Your task to perform on an android device: turn on wifi Image 0: 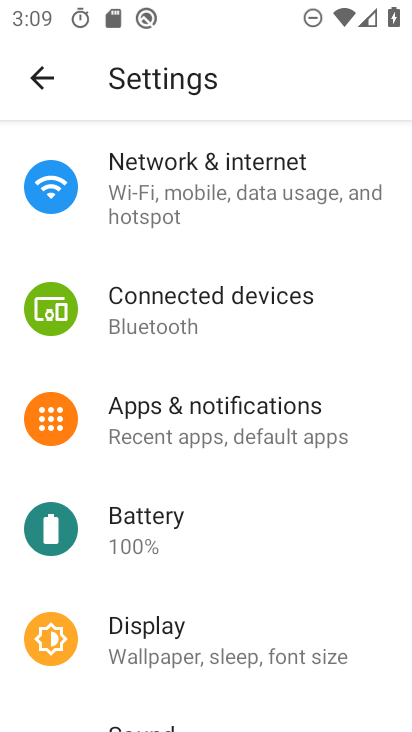
Step 0: press home button
Your task to perform on an android device: turn on wifi Image 1: 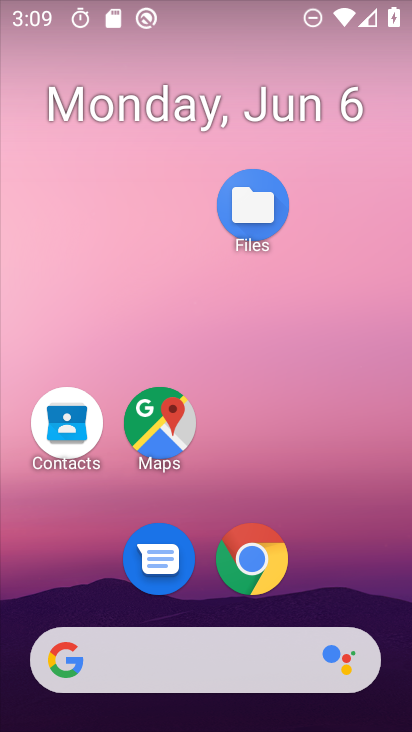
Step 1: drag from (228, 626) to (173, 131)
Your task to perform on an android device: turn on wifi Image 2: 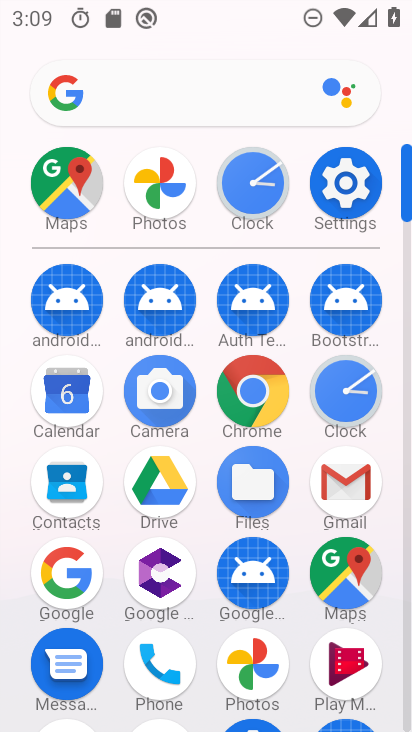
Step 2: click (335, 186)
Your task to perform on an android device: turn on wifi Image 3: 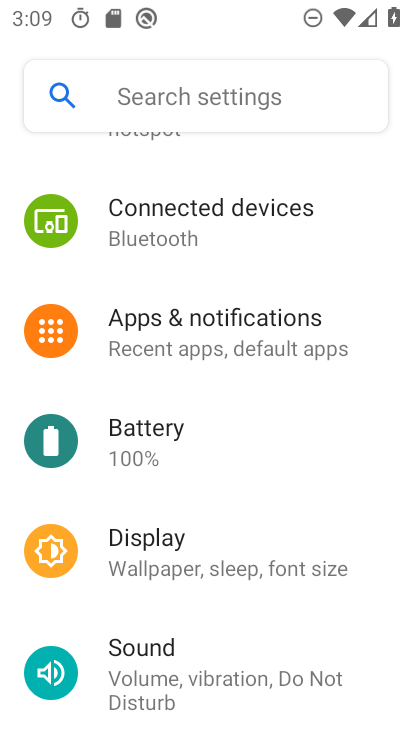
Step 3: drag from (193, 307) to (245, 687)
Your task to perform on an android device: turn on wifi Image 4: 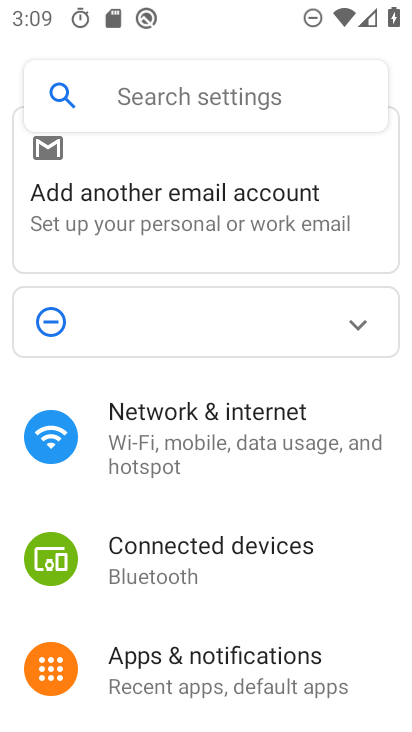
Step 4: click (244, 408)
Your task to perform on an android device: turn on wifi Image 5: 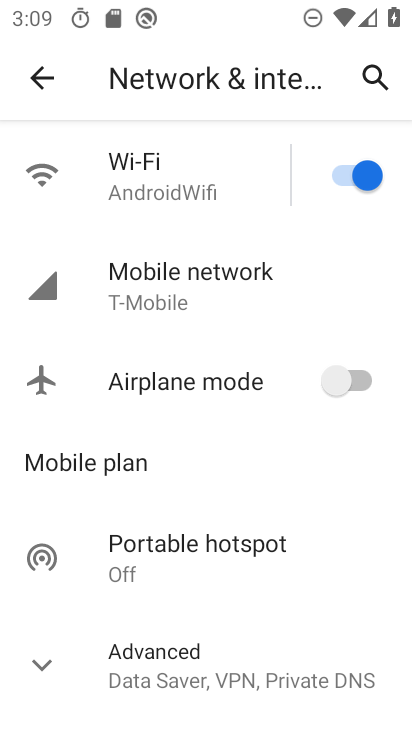
Step 5: task complete